Your task to perform on an android device: empty trash in the gmail app Image 0: 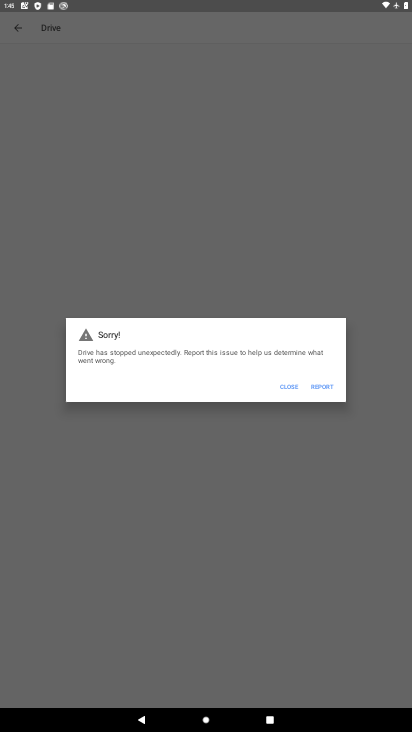
Step 0: press home button
Your task to perform on an android device: empty trash in the gmail app Image 1: 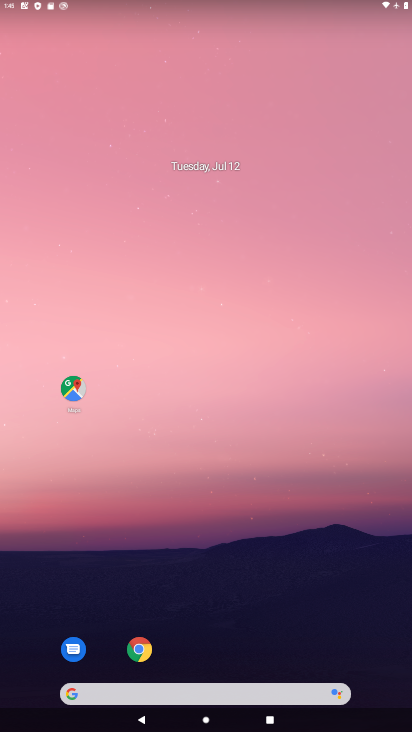
Step 1: drag from (259, 648) to (228, 235)
Your task to perform on an android device: empty trash in the gmail app Image 2: 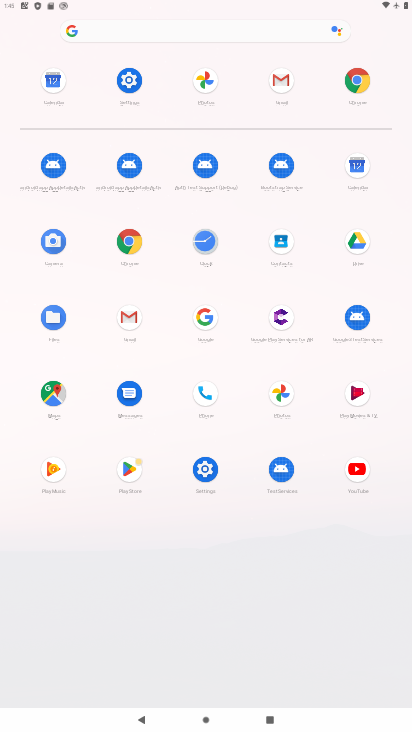
Step 2: click (271, 99)
Your task to perform on an android device: empty trash in the gmail app Image 3: 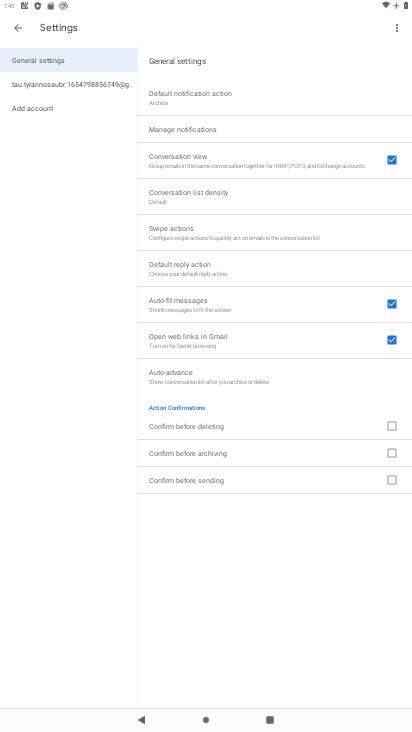
Step 3: press home button
Your task to perform on an android device: empty trash in the gmail app Image 4: 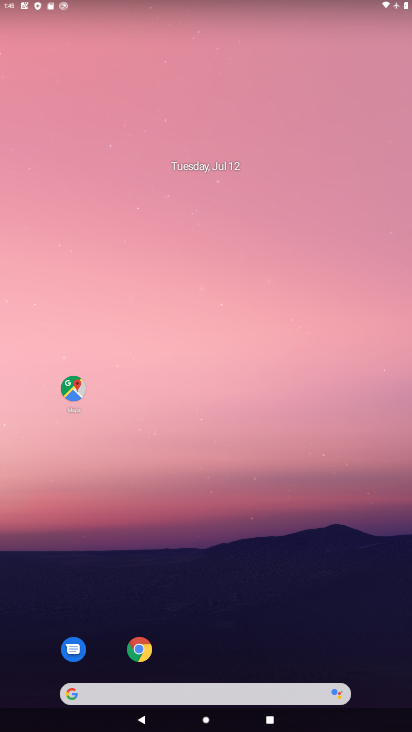
Step 4: drag from (240, 613) to (190, 65)
Your task to perform on an android device: empty trash in the gmail app Image 5: 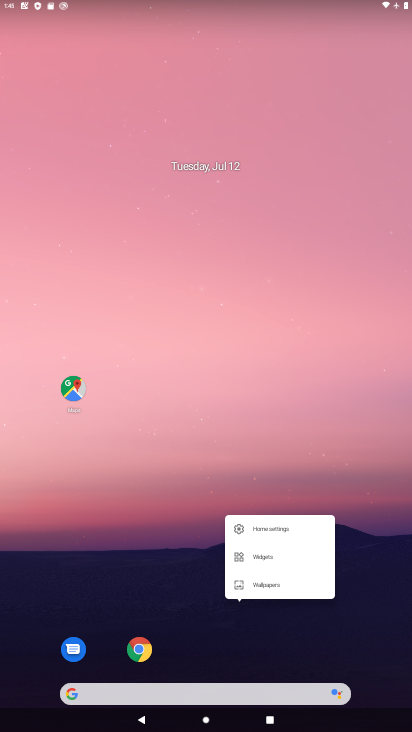
Step 5: click (166, 401)
Your task to perform on an android device: empty trash in the gmail app Image 6: 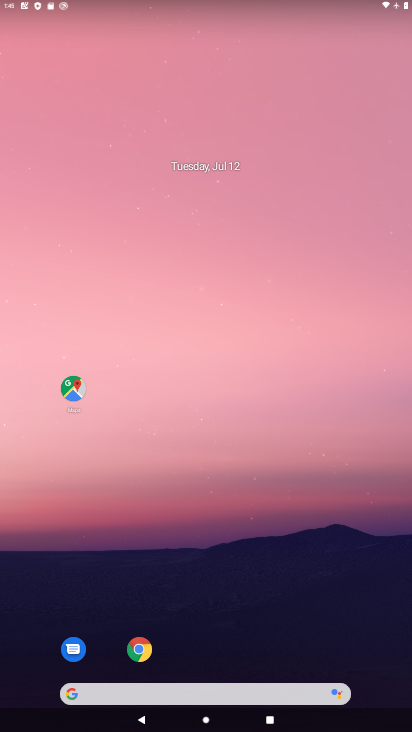
Step 6: drag from (244, 591) to (189, 98)
Your task to perform on an android device: empty trash in the gmail app Image 7: 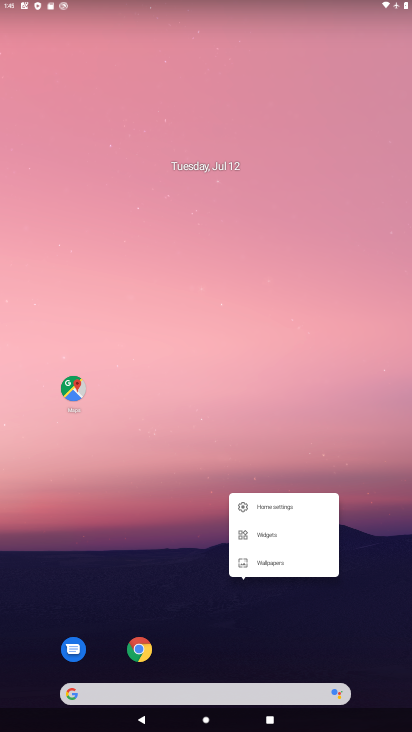
Step 7: click (163, 418)
Your task to perform on an android device: empty trash in the gmail app Image 8: 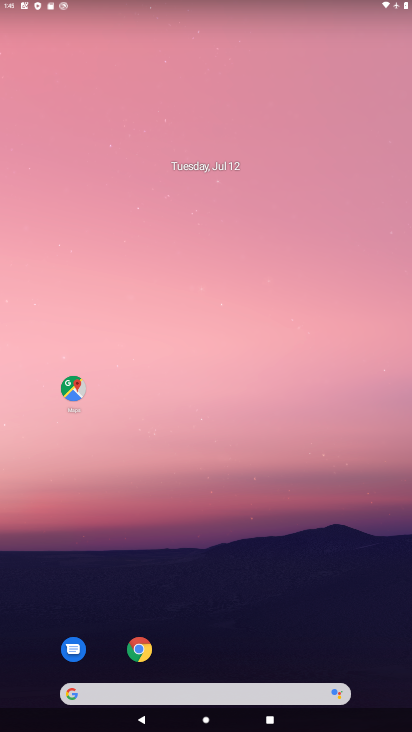
Step 8: drag from (286, 639) to (246, 43)
Your task to perform on an android device: empty trash in the gmail app Image 9: 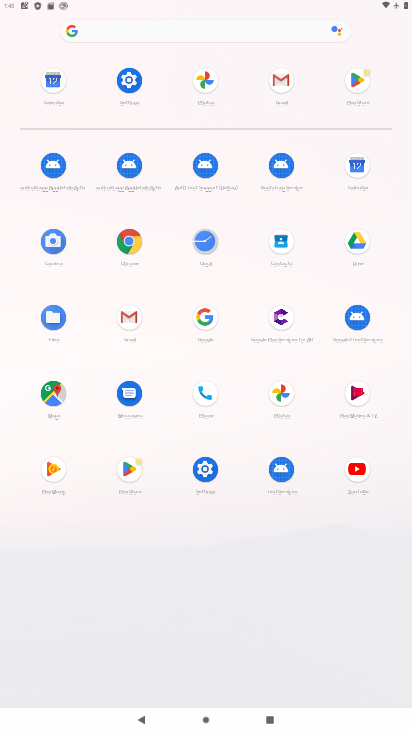
Step 9: click (292, 86)
Your task to perform on an android device: empty trash in the gmail app Image 10: 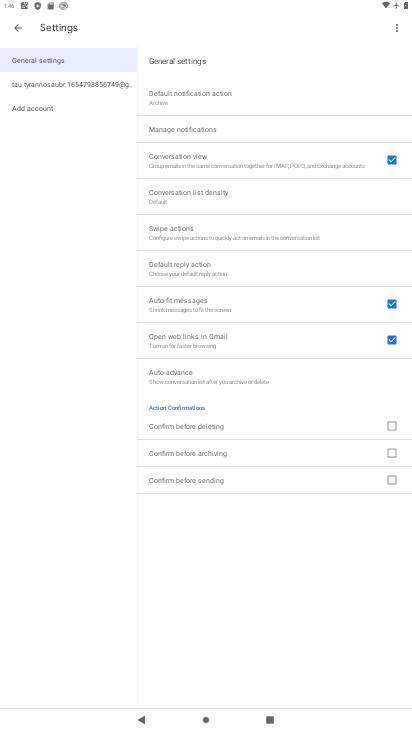
Step 10: click (15, 26)
Your task to perform on an android device: empty trash in the gmail app Image 11: 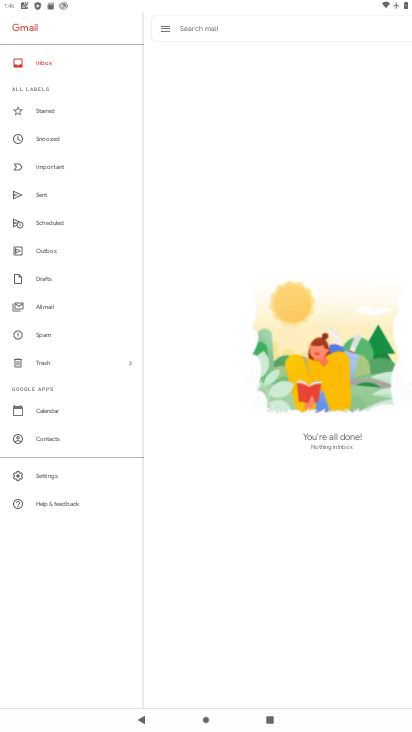
Step 11: click (55, 358)
Your task to perform on an android device: empty trash in the gmail app Image 12: 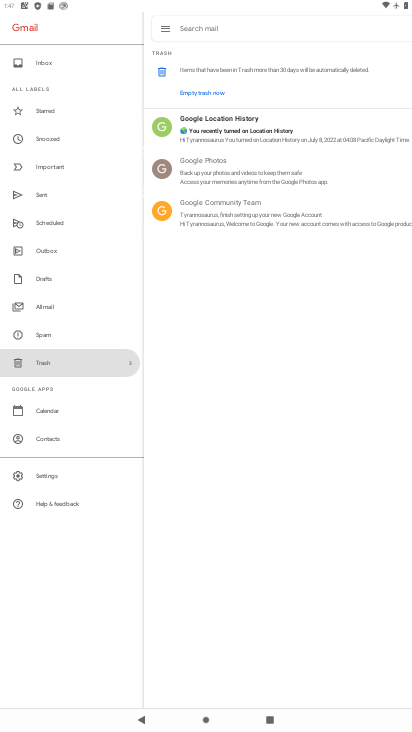
Step 12: click (205, 91)
Your task to perform on an android device: empty trash in the gmail app Image 13: 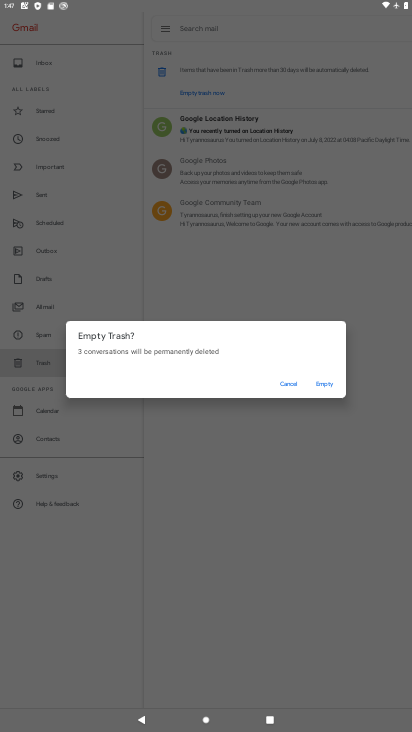
Step 13: click (329, 383)
Your task to perform on an android device: empty trash in the gmail app Image 14: 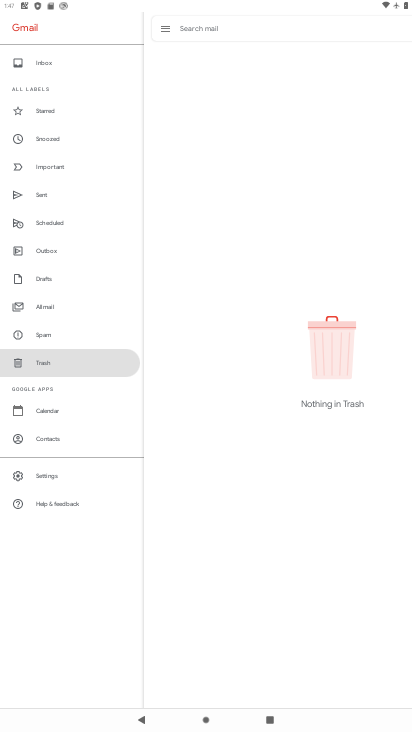
Step 14: task complete